Your task to perform on an android device: refresh tabs in the chrome app Image 0: 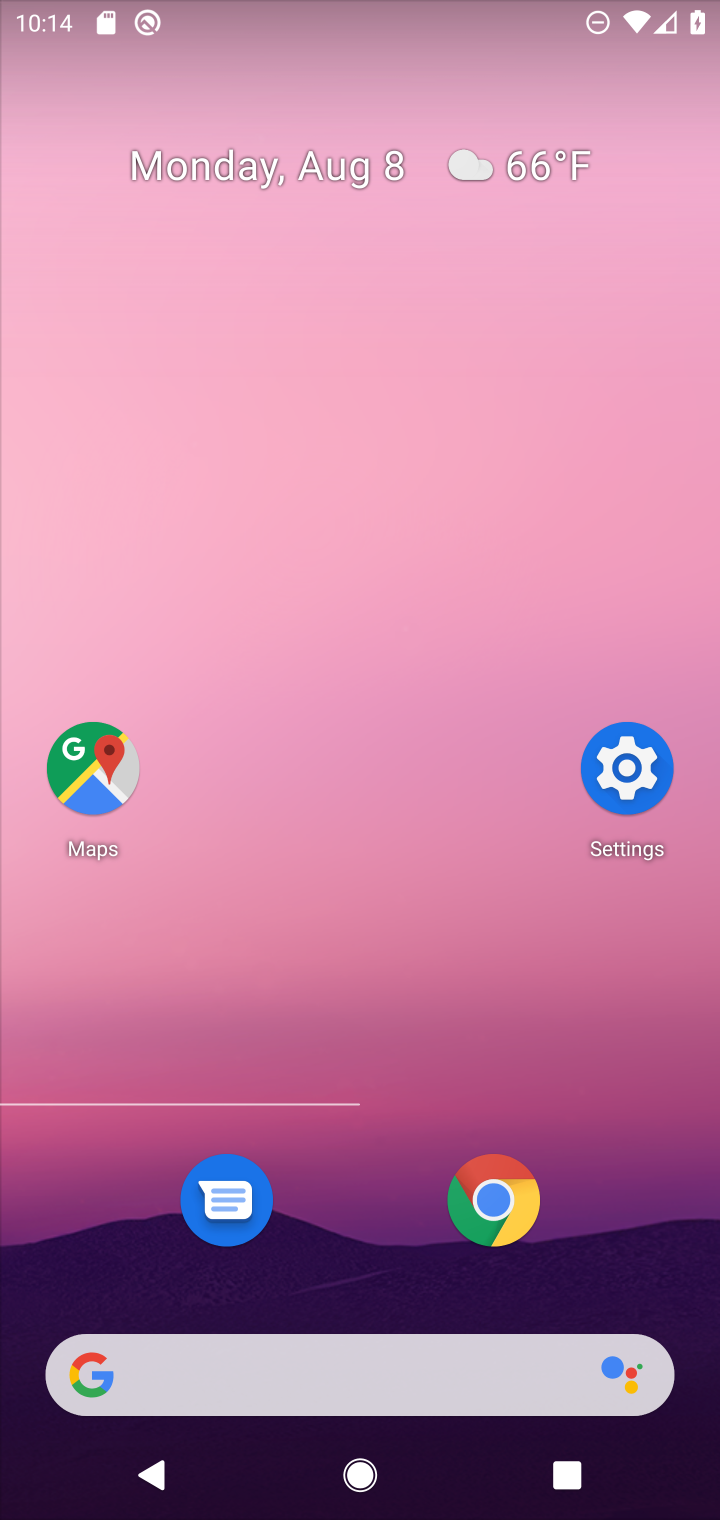
Step 0: press home button
Your task to perform on an android device: refresh tabs in the chrome app Image 1: 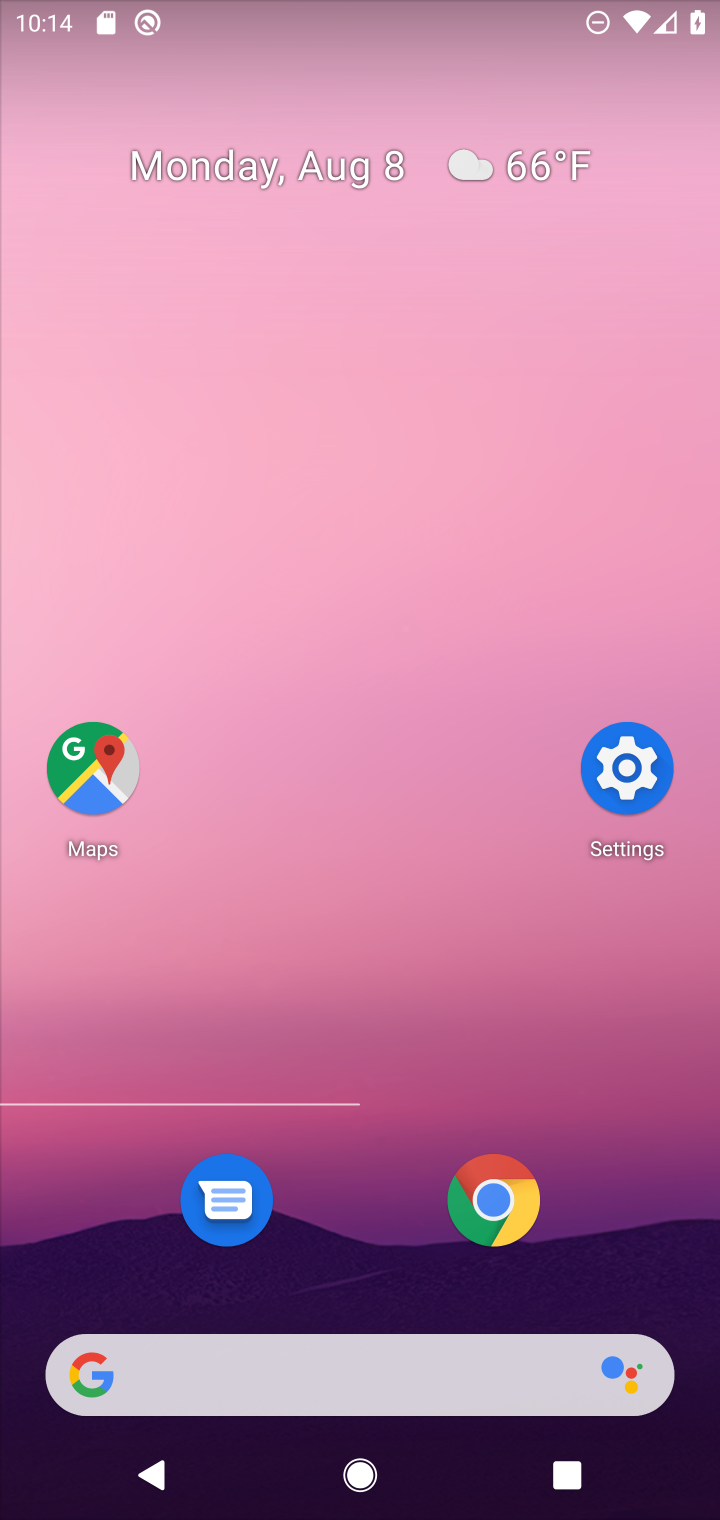
Step 1: click (500, 1205)
Your task to perform on an android device: refresh tabs in the chrome app Image 2: 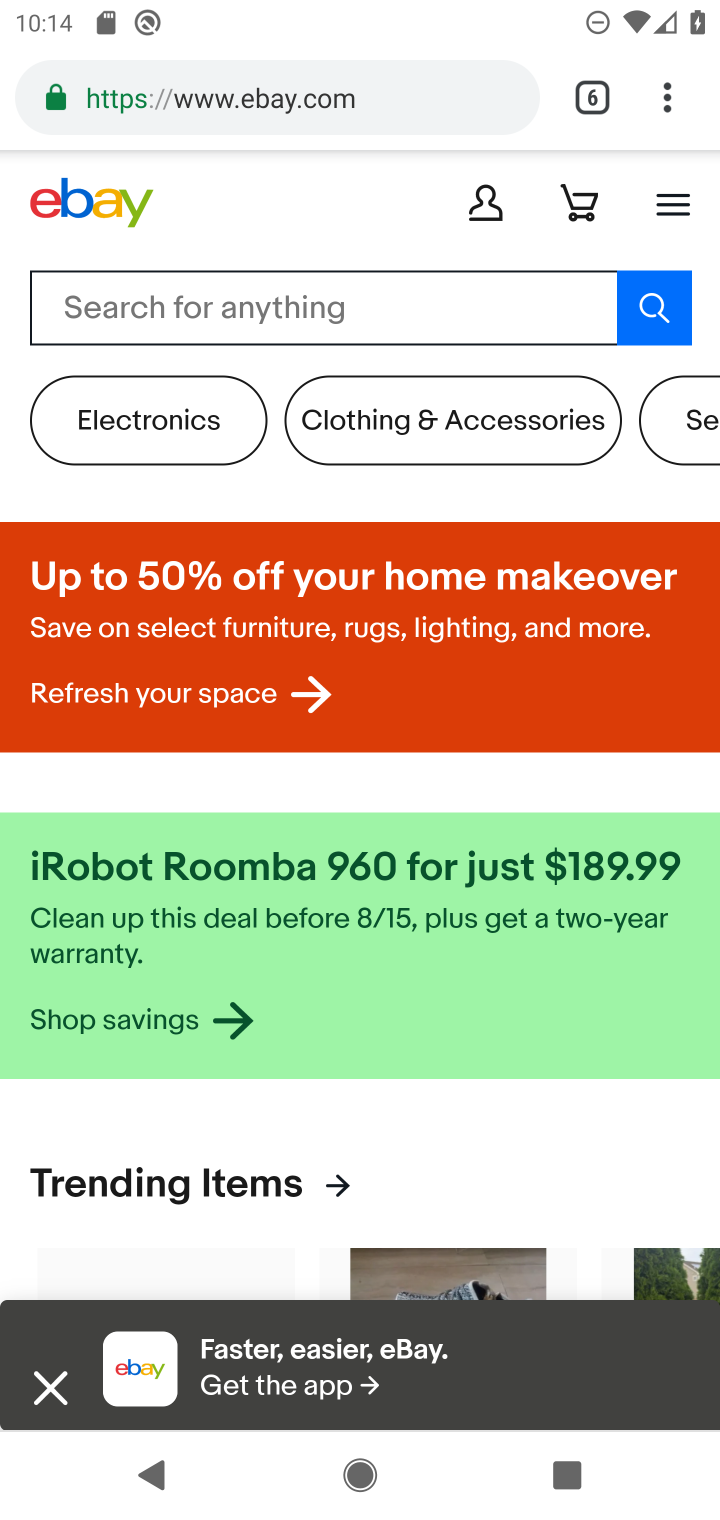
Step 2: click (655, 131)
Your task to perform on an android device: refresh tabs in the chrome app Image 3: 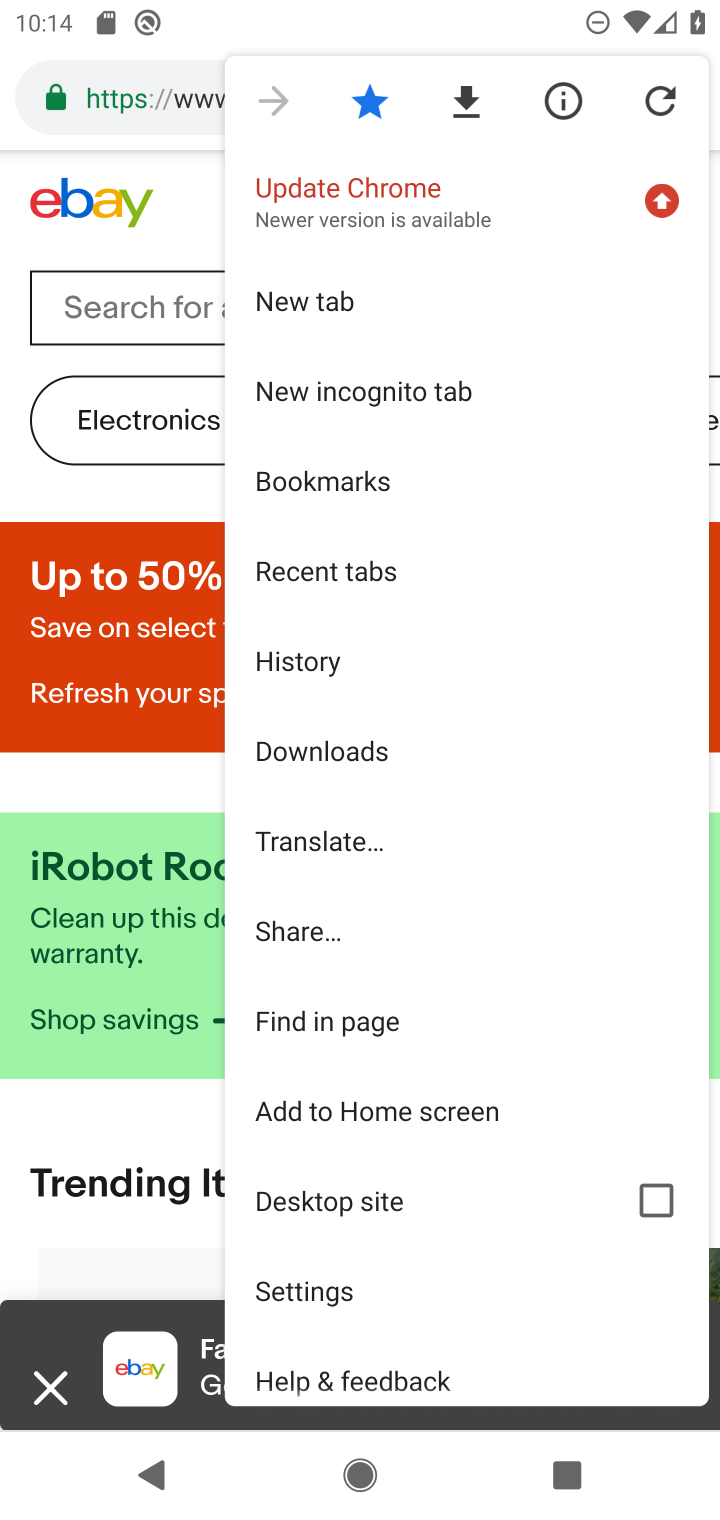
Step 3: click (653, 109)
Your task to perform on an android device: refresh tabs in the chrome app Image 4: 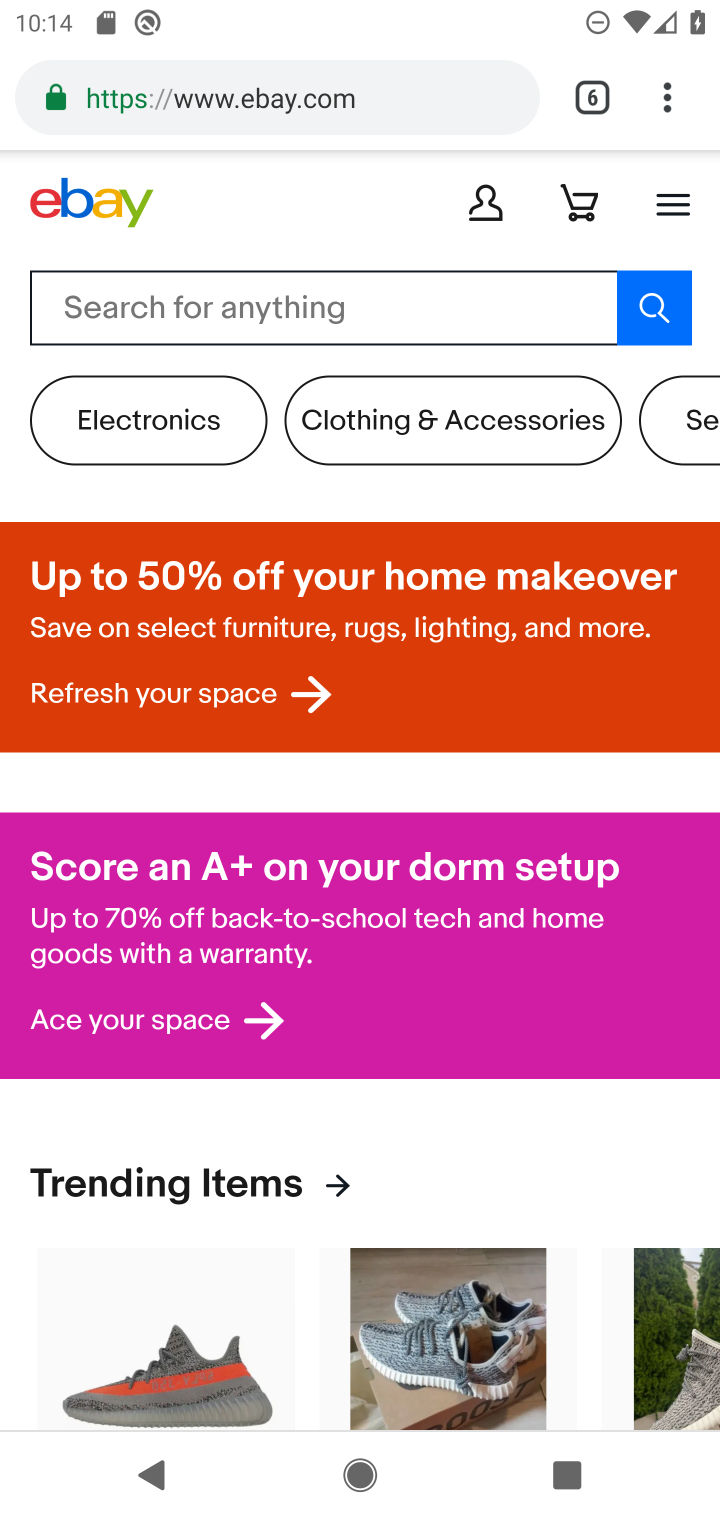
Step 4: task complete